Your task to perform on an android device: install app "ColorNote Notepad Notes" Image 0: 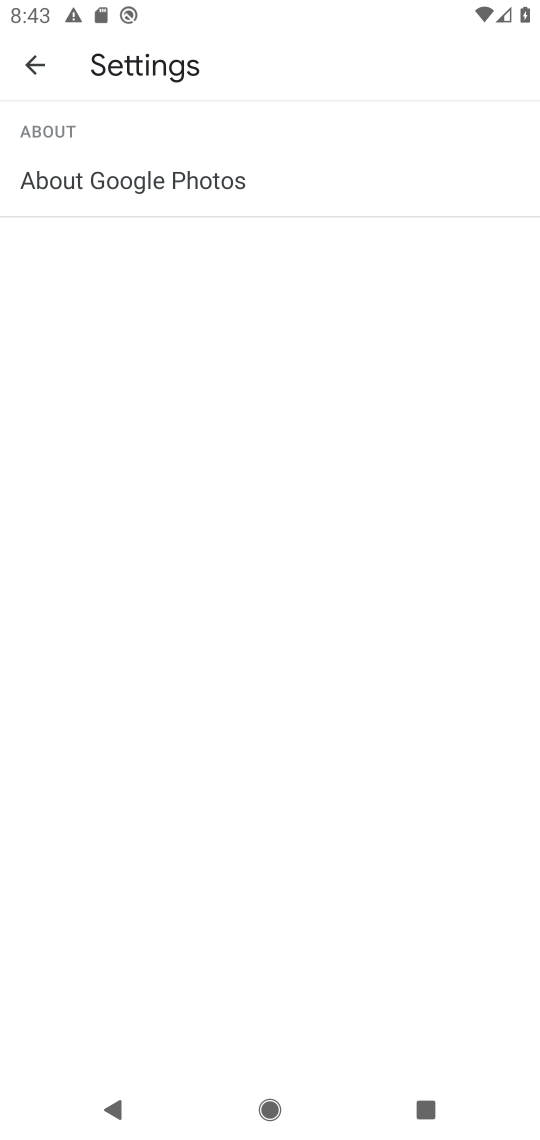
Step 0: press home button
Your task to perform on an android device: install app "ColorNote Notepad Notes" Image 1: 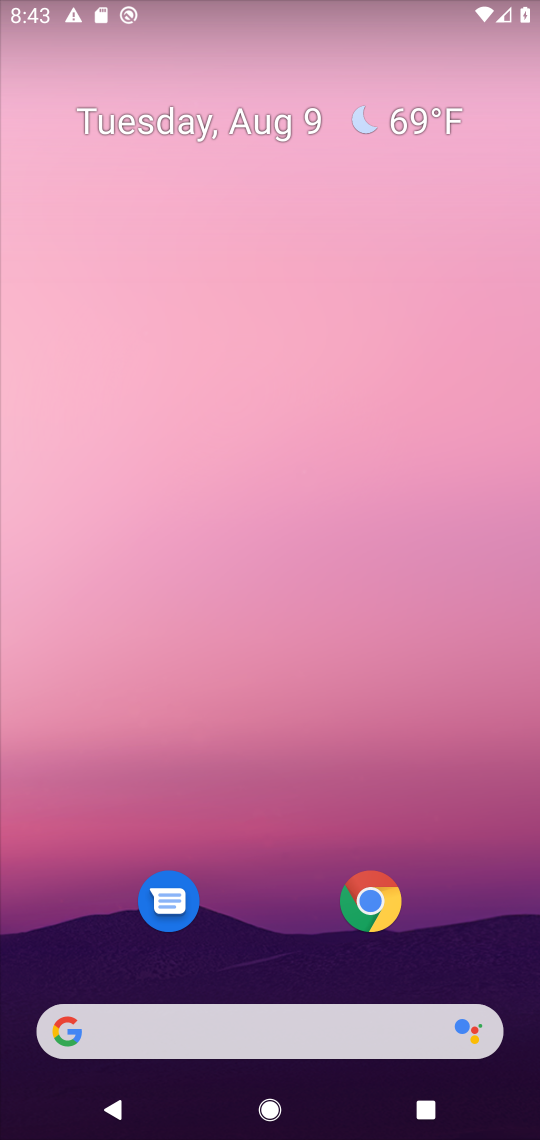
Step 1: drag from (241, 1015) to (374, 137)
Your task to perform on an android device: install app "ColorNote Notepad Notes" Image 2: 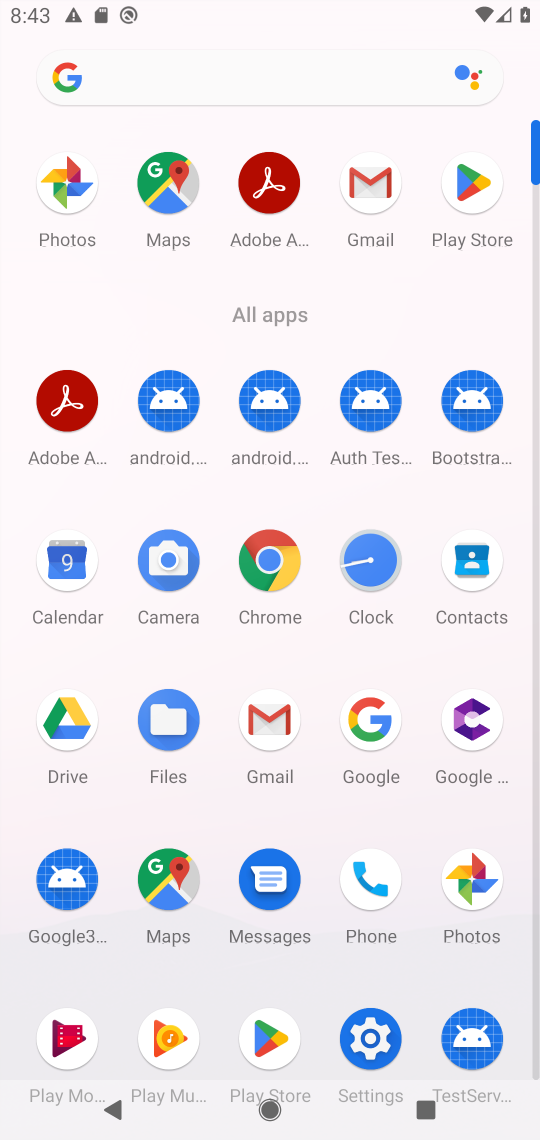
Step 2: click (254, 1018)
Your task to perform on an android device: install app "ColorNote Notepad Notes" Image 3: 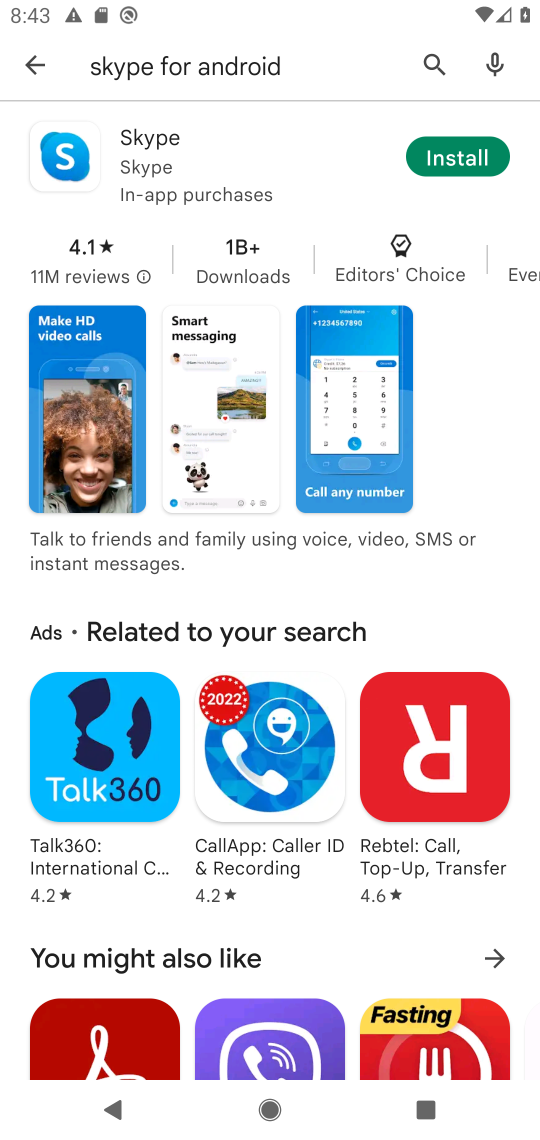
Step 3: click (55, 122)
Your task to perform on an android device: install app "ColorNote Notepad Notes" Image 4: 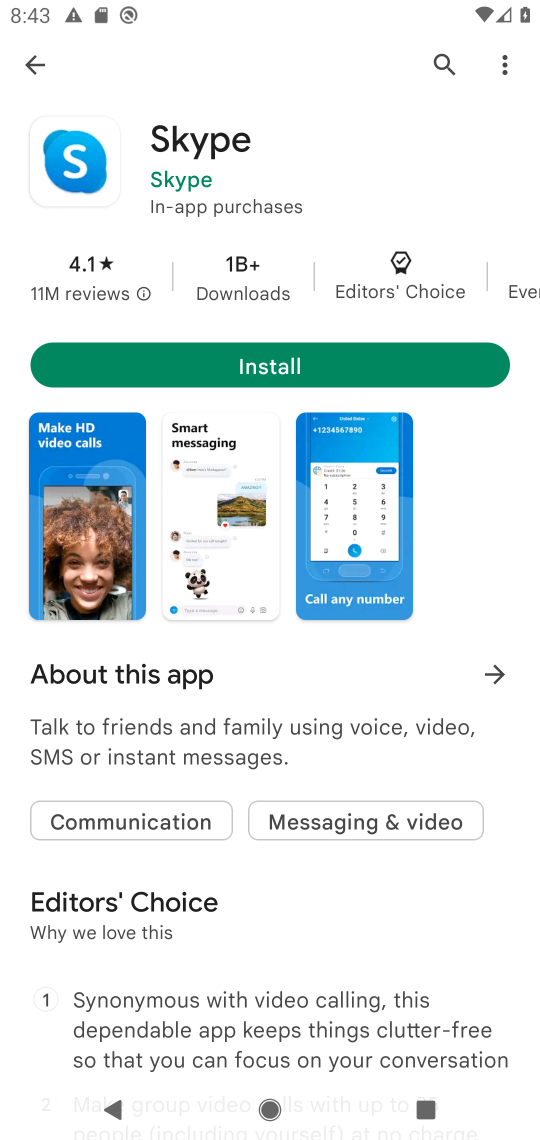
Step 4: click (52, 65)
Your task to perform on an android device: install app "ColorNote Notepad Notes" Image 5: 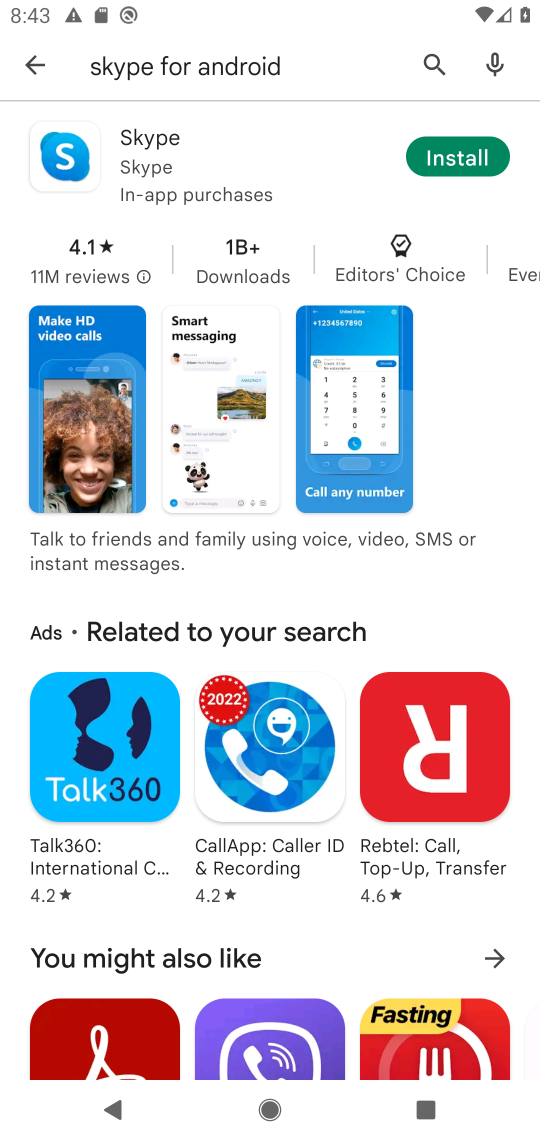
Step 5: click (47, 65)
Your task to perform on an android device: install app "ColorNote Notepad Notes" Image 6: 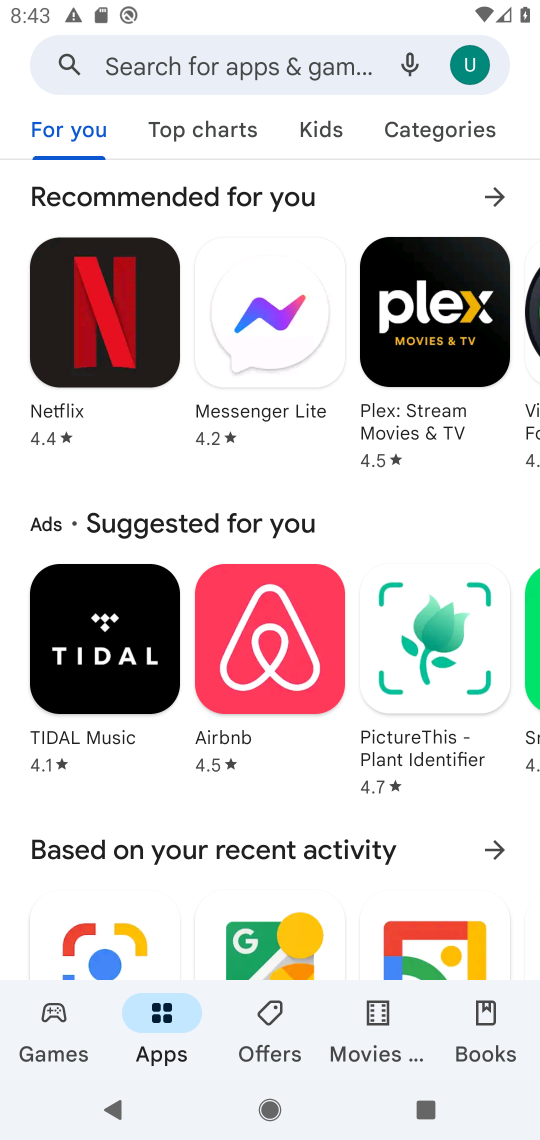
Step 6: click (317, 50)
Your task to perform on an android device: install app "ColorNote Notepad Notes" Image 7: 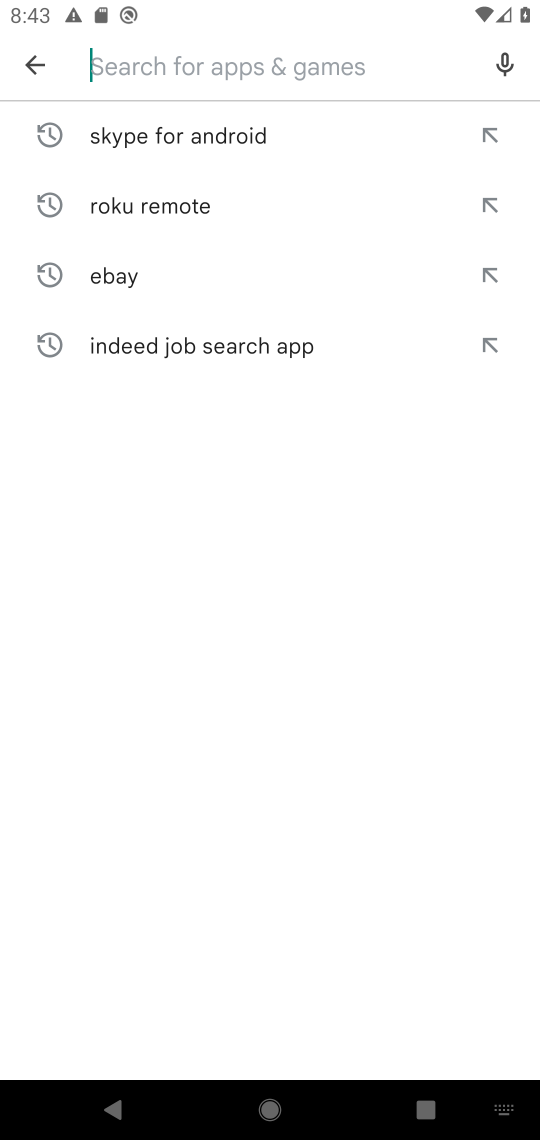
Step 7: type "ColorNote Notepad Notes "
Your task to perform on an android device: install app "ColorNote Notepad Notes" Image 8: 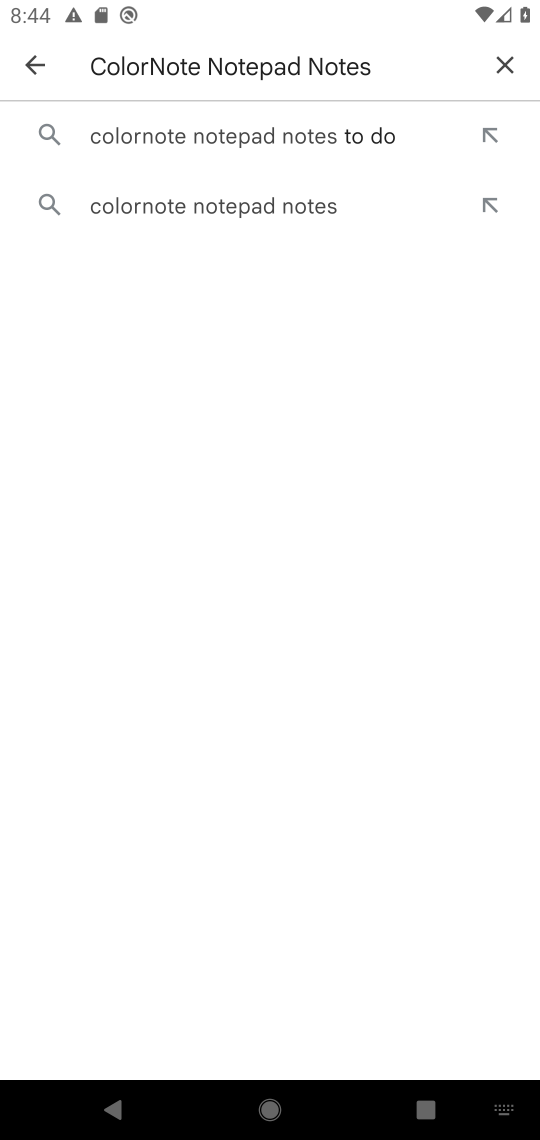
Step 8: click (226, 156)
Your task to perform on an android device: install app "ColorNote Notepad Notes" Image 9: 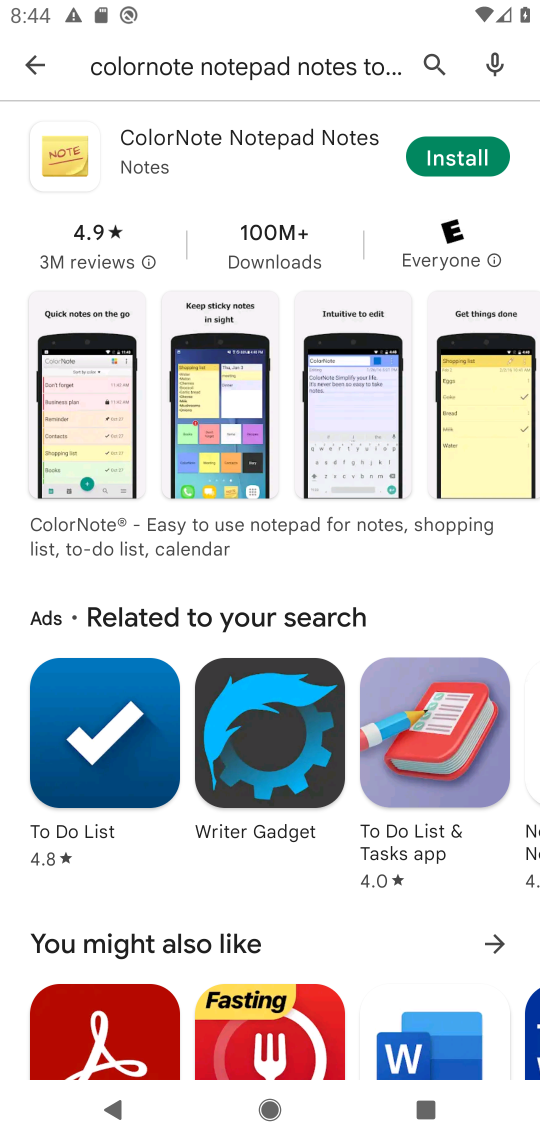
Step 9: click (472, 147)
Your task to perform on an android device: install app "ColorNote Notepad Notes" Image 10: 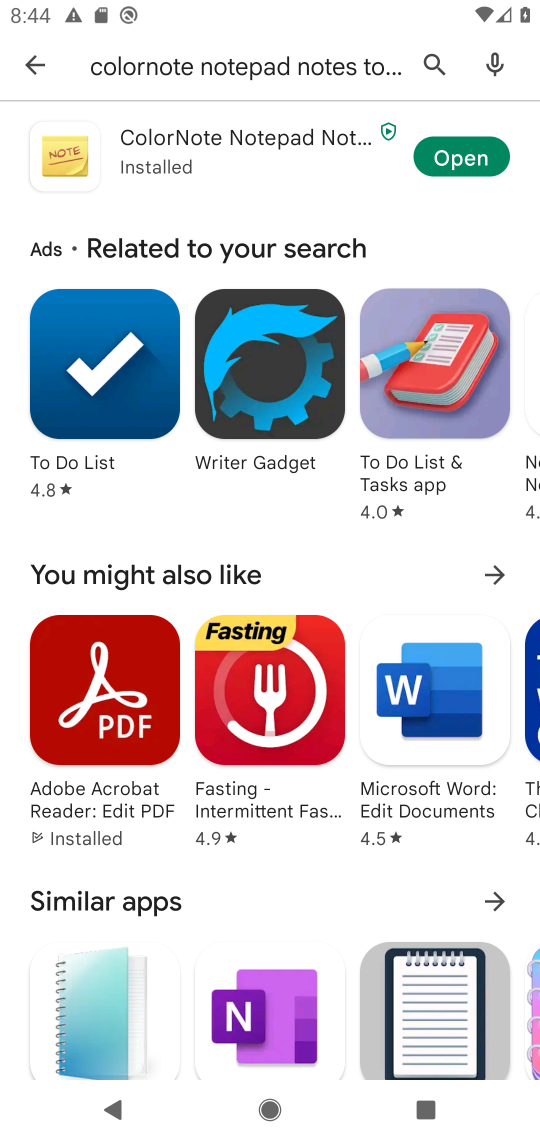
Step 10: click (486, 154)
Your task to perform on an android device: install app "ColorNote Notepad Notes" Image 11: 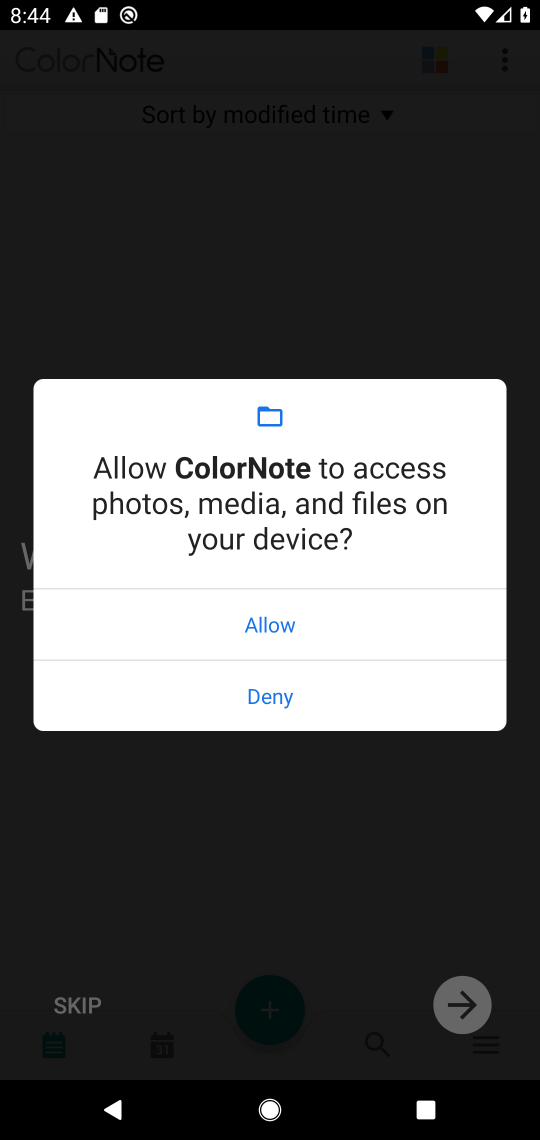
Step 11: click (261, 607)
Your task to perform on an android device: install app "ColorNote Notepad Notes" Image 12: 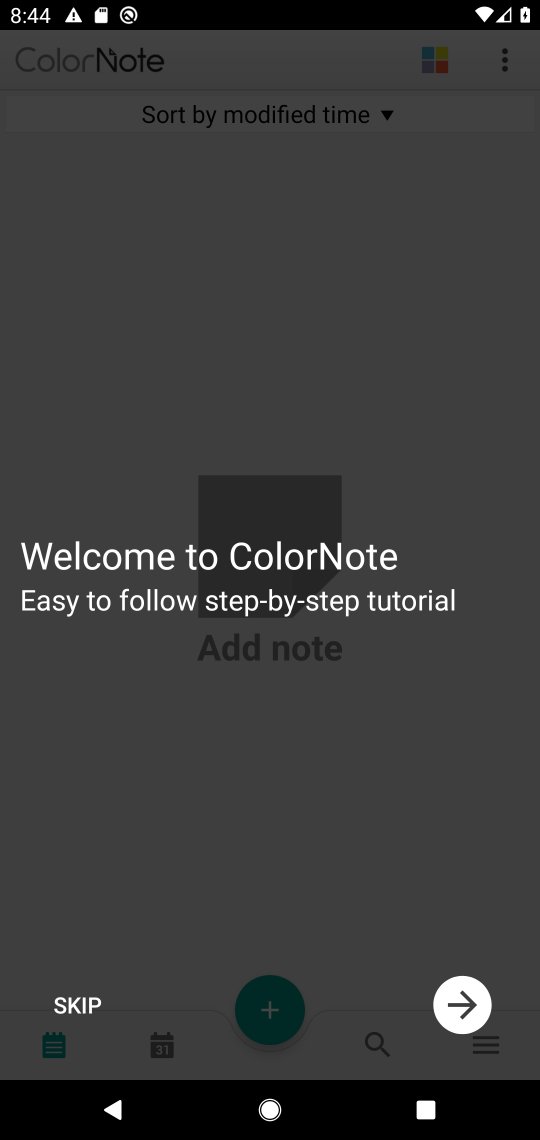
Step 12: task complete